Your task to perform on an android device: Go to notification settings Image 0: 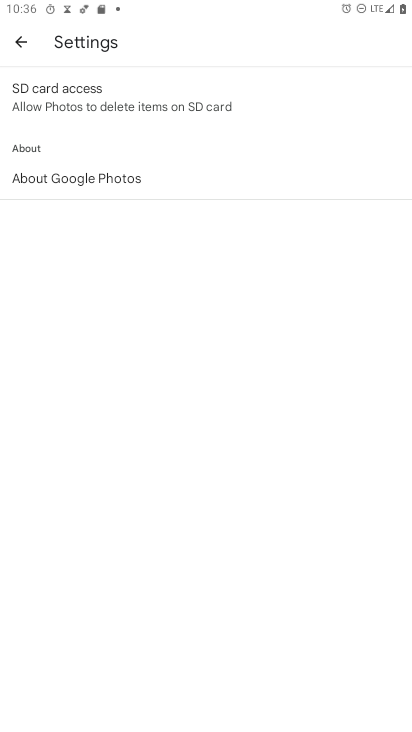
Step 0: press home button
Your task to perform on an android device: Go to notification settings Image 1: 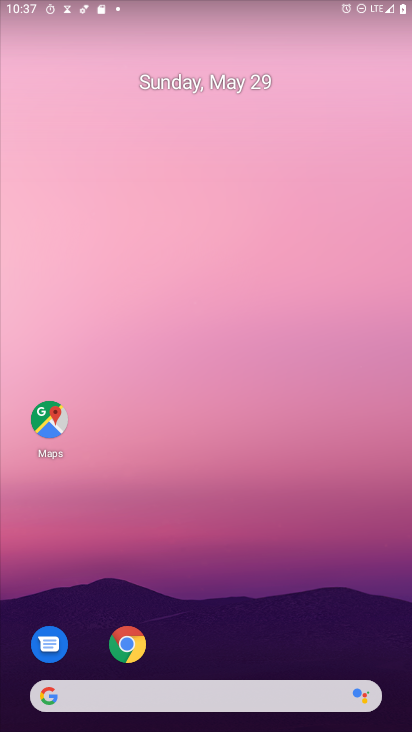
Step 1: drag from (149, 731) to (202, 7)
Your task to perform on an android device: Go to notification settings Image 2: 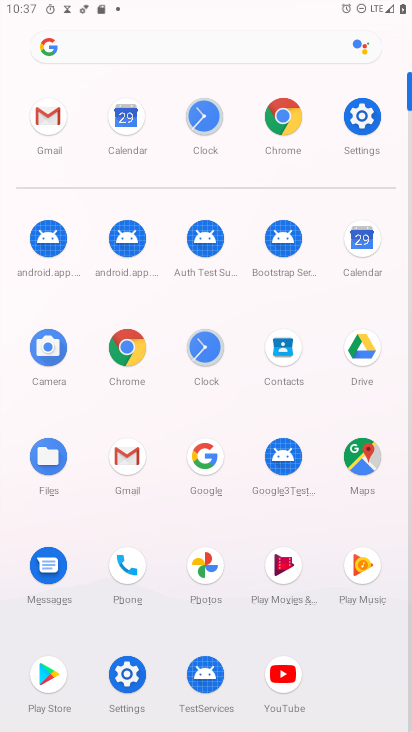
Step 2: click (357, 121)
Your task to perform on an android device: Go to notification settings Image 3: 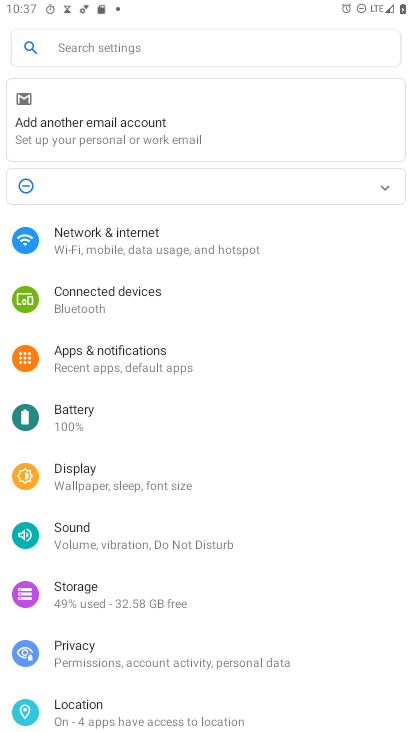
Step 3: click (144, 360)
Your task to perform on an android device: Go to notification settings Image 4: 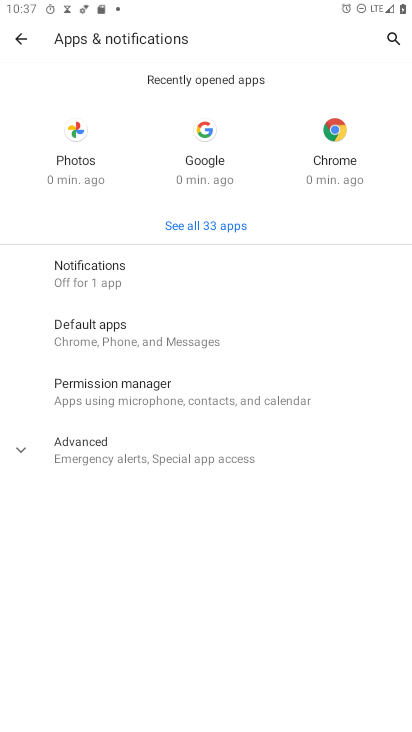
Step 4: task complete